Your task to perform on an android device: Open Chrome and go to settings Image 0: 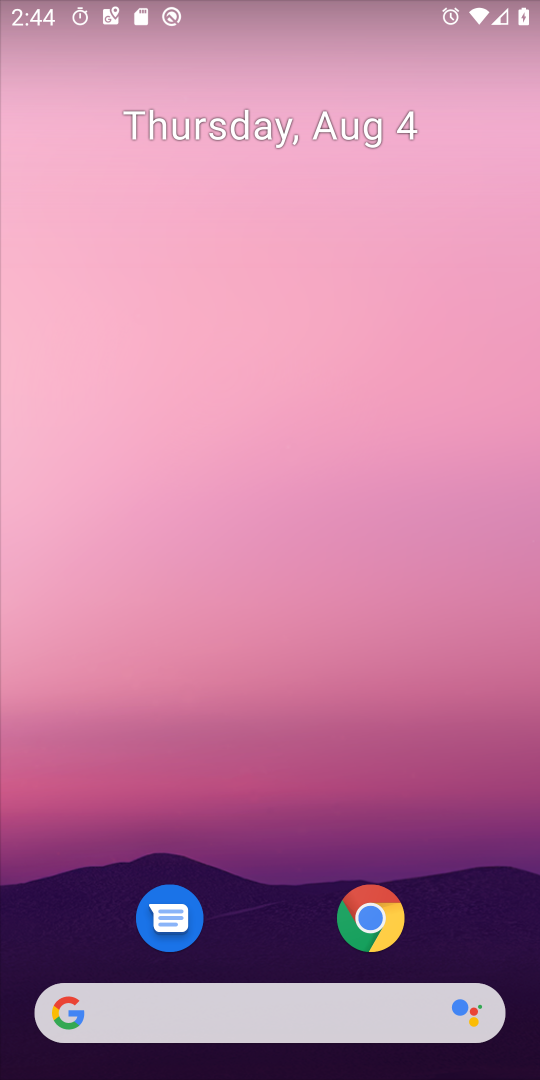
Step 0: click (366, 925)
Your task to perform on an android device: Open Chrome and go to settings Image 1: 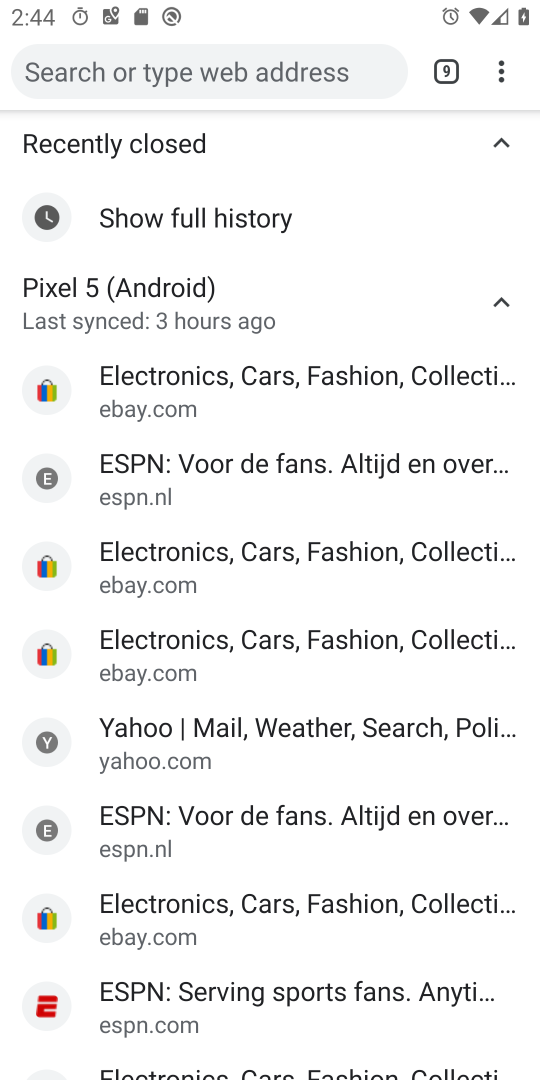
Step 1: click (490, 61)
Your task to perform on an android device: Open Chrome and go to settings Image 2: 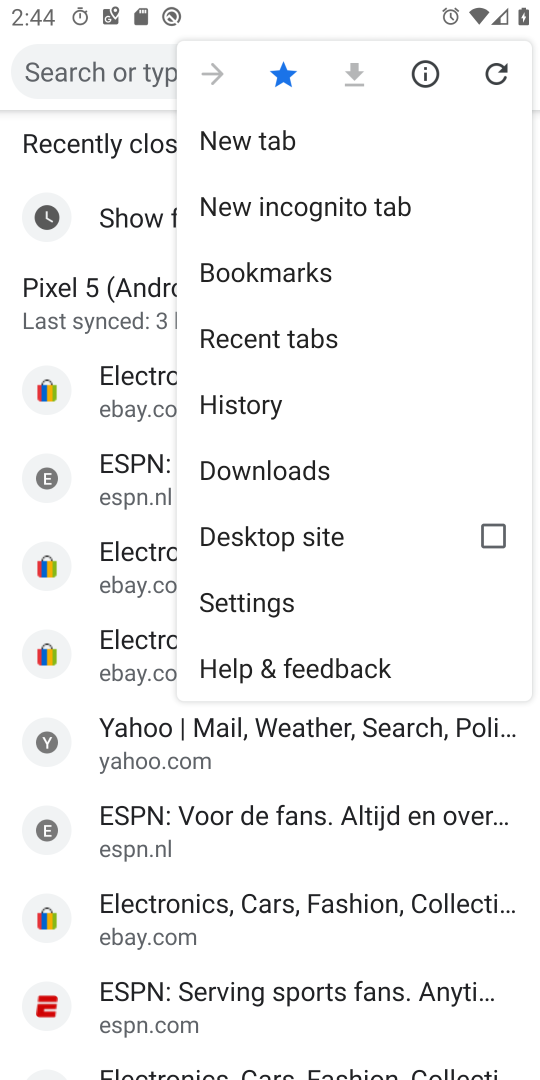
Step 2: click (293, 598)
Your task to perform on an android device: Open Chrome and go to settings Image 3: 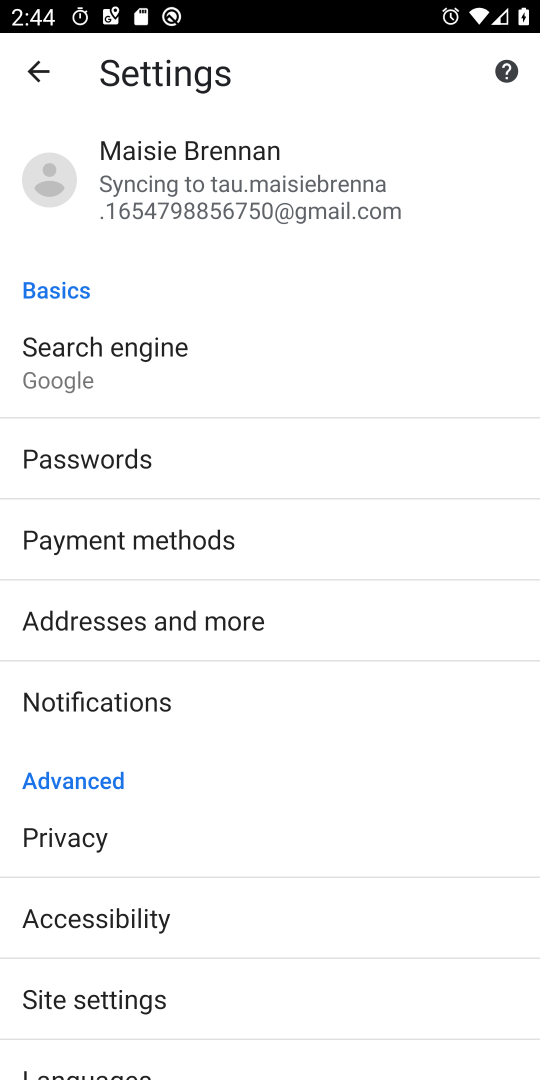
Step 3: task complete